Your task to perform on an android device: toggle airplane mode Image 0: 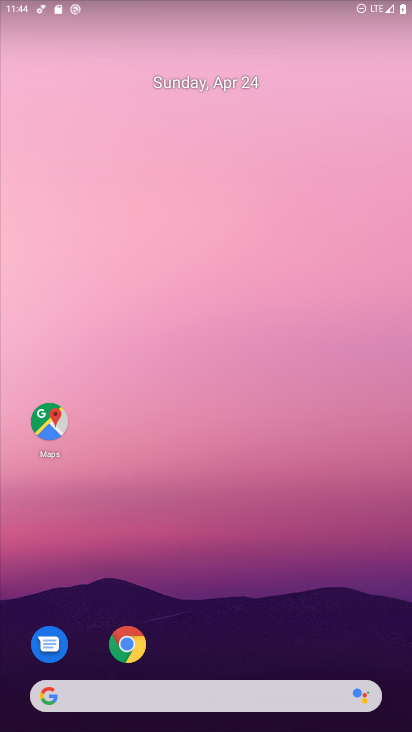
Step 0: drag from (199, 642) to (299, 55)
Your task to perform on an android device: toggle airplane mode Image 1: 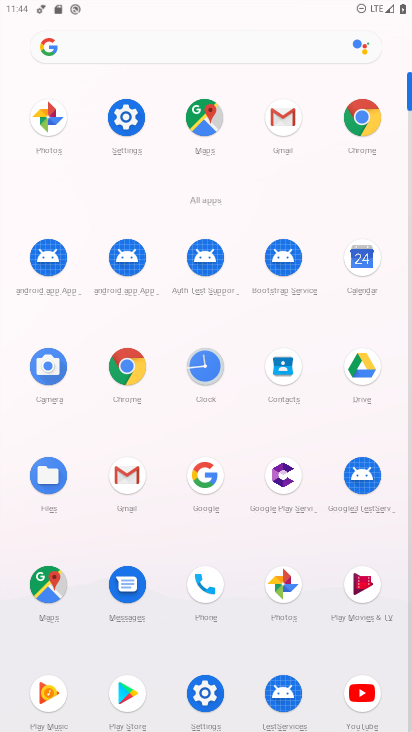
Step 1: click (118, 121)
Your task to perform on an android device: toggle airplane mode Image 2: 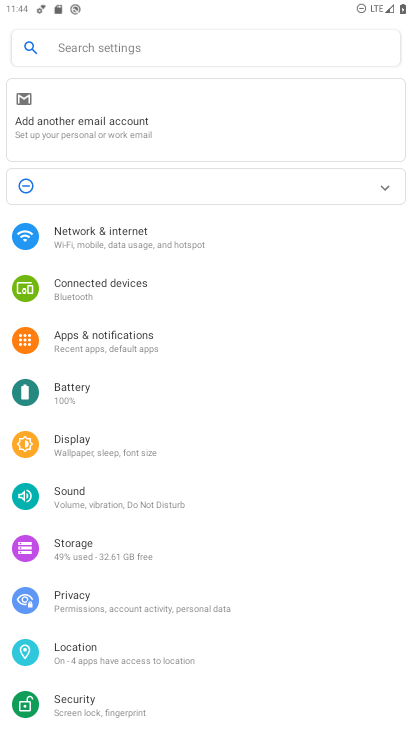
Step 2: click (139, 239)
Your task to perform on an android device: toggle airplane mode Image 3: 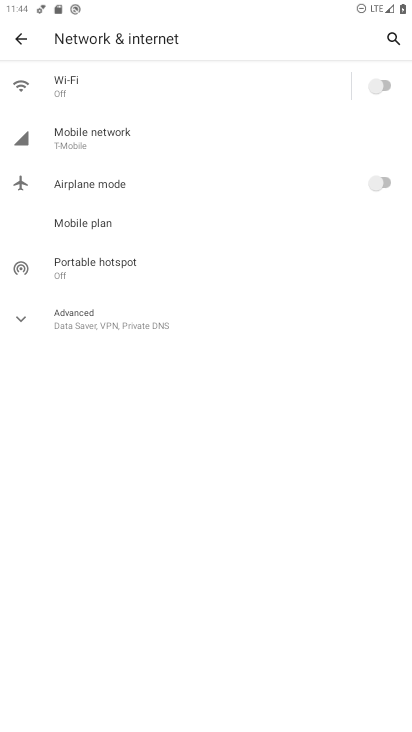
Step 3: click (378, 182)
Your task to perform on an android device: toggle airplane mode Image 4: 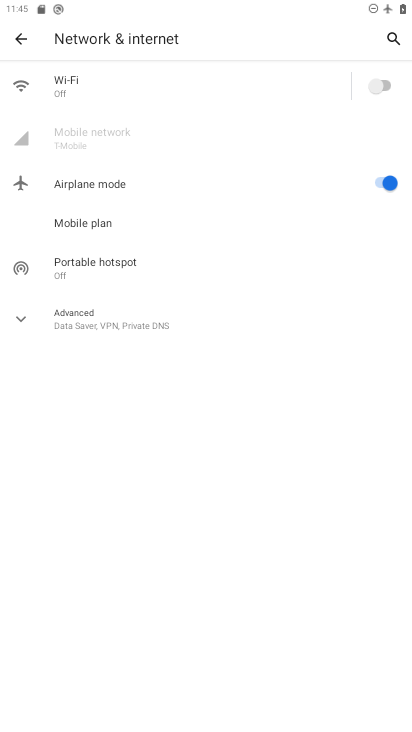
Step 4: task complete